Your task to perform on an android device: see tabs open on other devices in the chrome app Image 0: 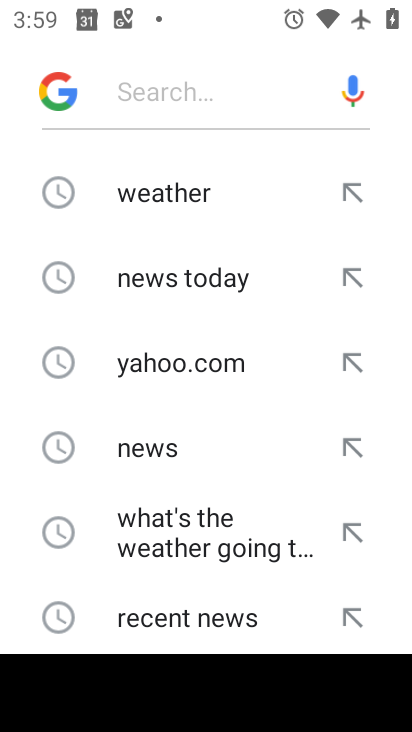
Step 0: press home button
Your task to perform on an android device: see tabs open on other devices in the chrome app Image 1: 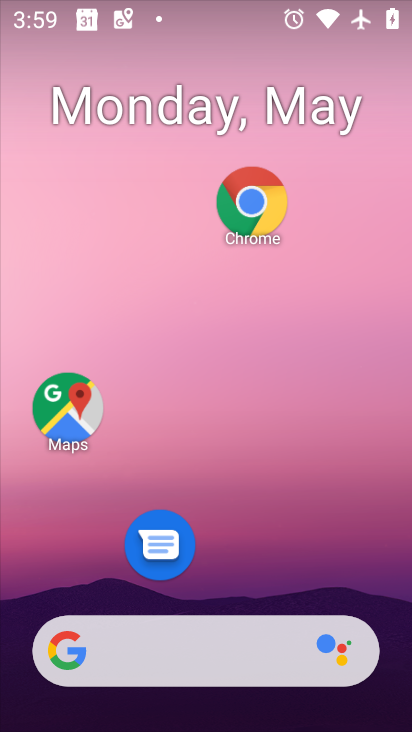
Step 1: click (267, 228)
Your task to perform on an android device: see tabs open on other devices in the chrome app Image 2: 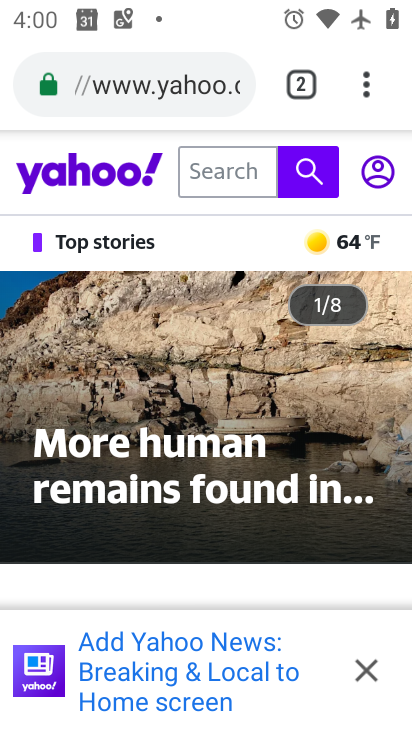
Step 2: task complete